Your task to perform on an android device: remove spam from my inbox in the gmail app Image 0: 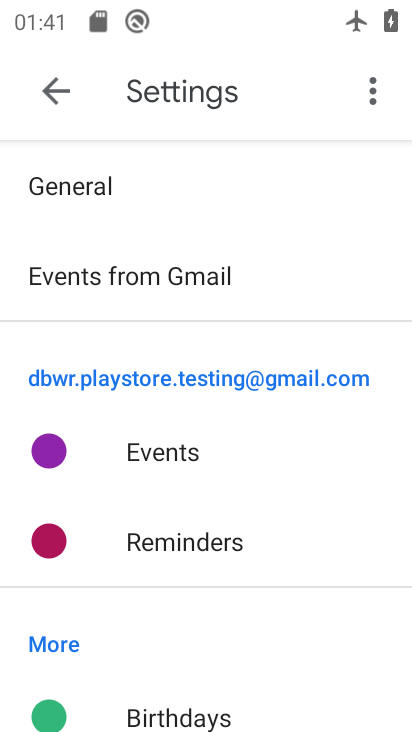
Step 0: press home button
Your task to perform on an android device: remove spam from my inbox in the gmail app Image 1: 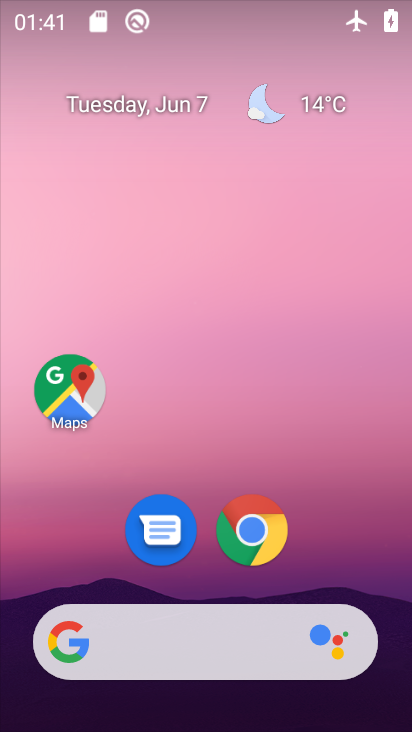
Step 1: drag from (329, 585) to (305, 278)
Your task to perform on an android device: remove spam from my inbox in the gmail app Image 2: 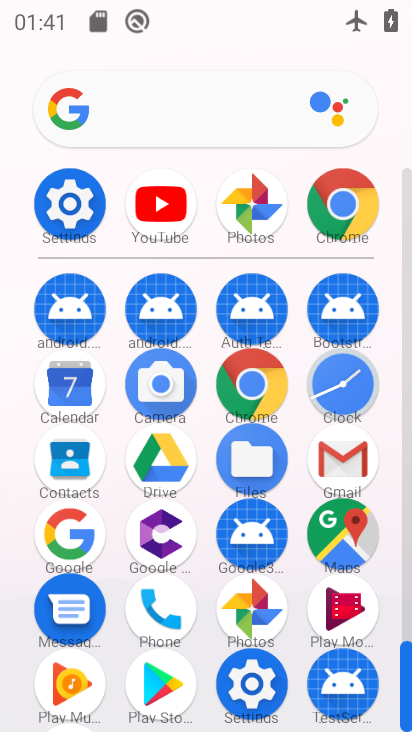
Step 2: click (337, 455)
Your task to perform on an android device: remove spam from my inbox in the gmail app Image 3: 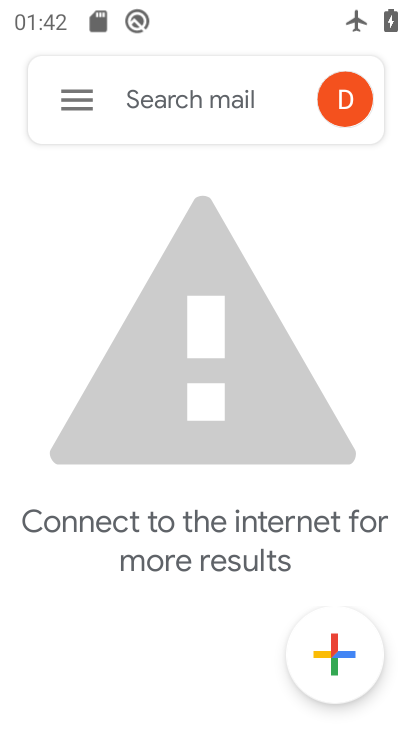
Step 3: click (74, 103)
Your task to perform on an android device: remove spam from my inbox in the gmail app Image 4: 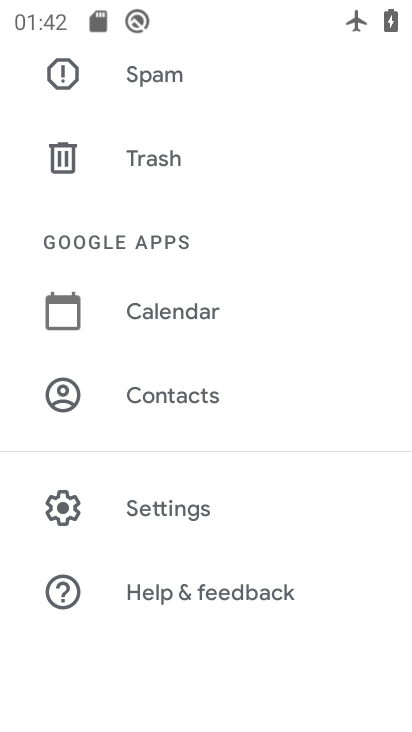
Step 4: click (149, 78)
Your task to perform on an android device: remove spam from my inbox in the gmail app Image 5: 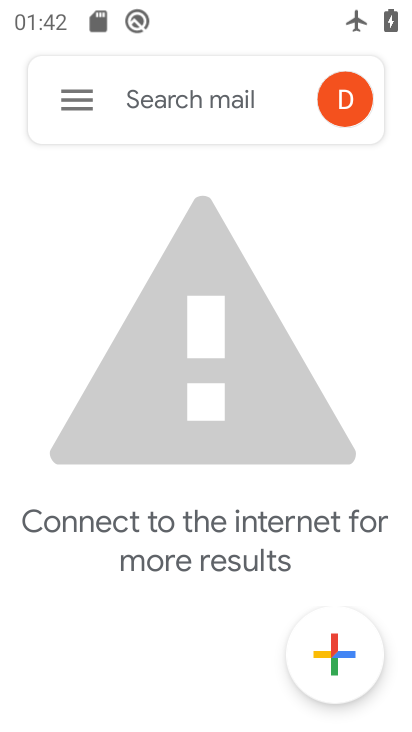
Step 5: task complete